Your task to perform on an android device: Go to Amazon Image 0: 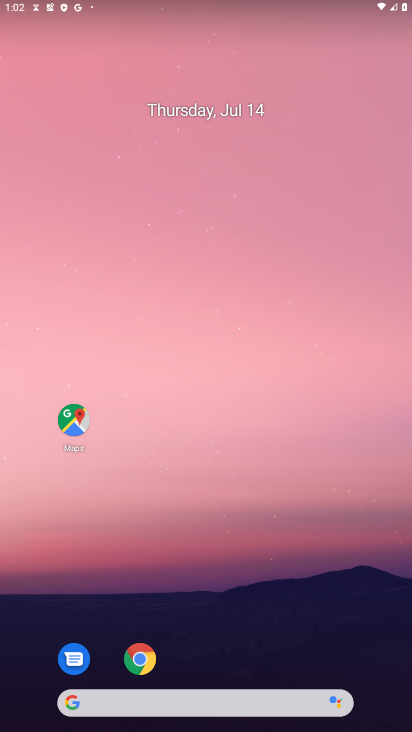
Step 0: click (113, 700)
Your task to perform on an android device: Go to Amazon Image 1: 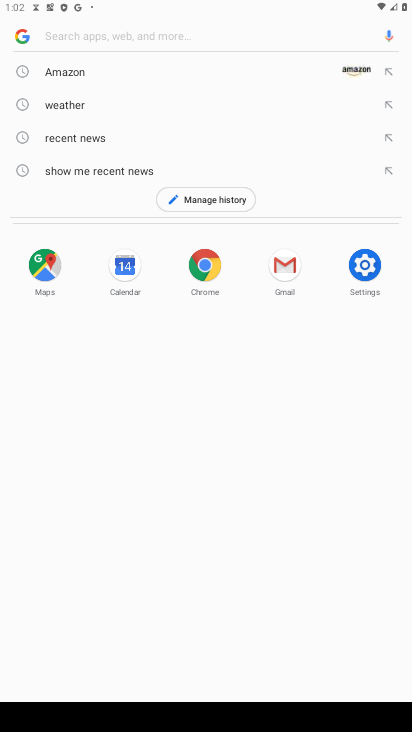
Step 1: click (73, 72)
Your task to perform on an android device: Go to Amazon Image 2: 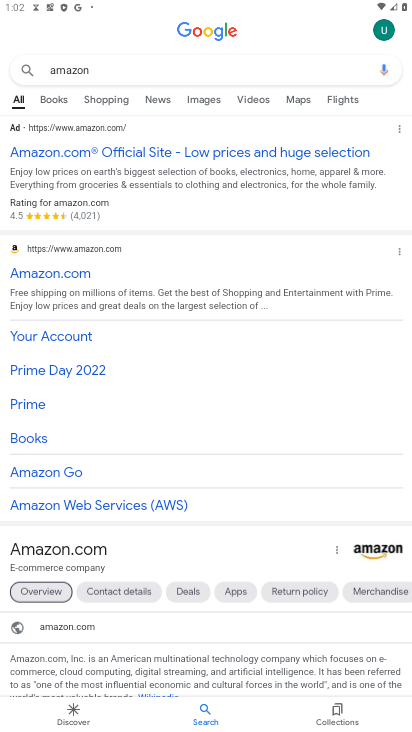
Step 2: task complete